Your task to perform on an android device: Go to Google maps Image 0: 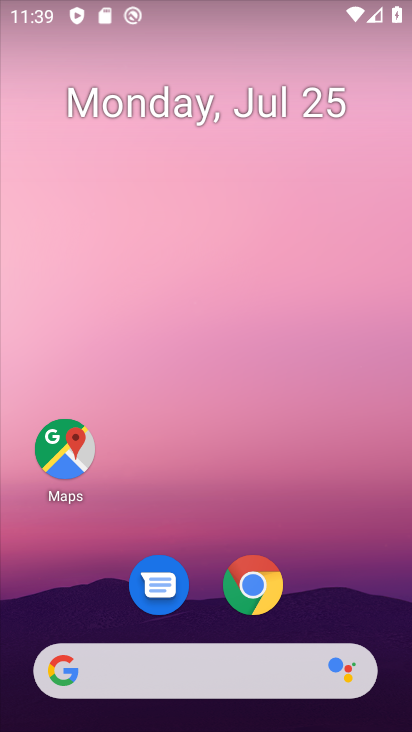
Step 0: click (65, 452)
Your task to perform on an android device: Go to Google maps Image 1: 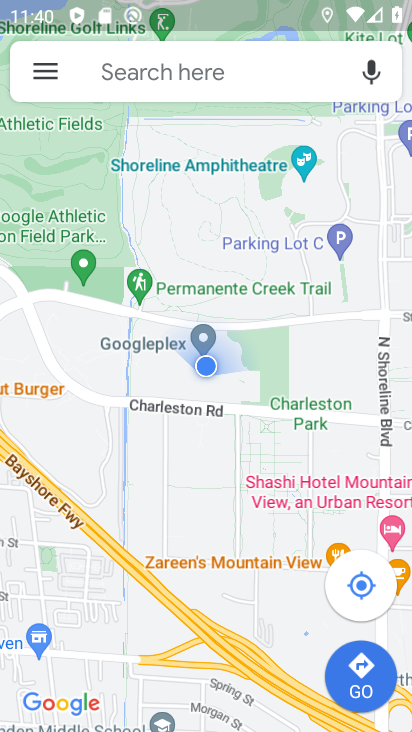
Step 1: task complete